Your task to perform on an android device: turn on the 12-hour format for clock Image 0: 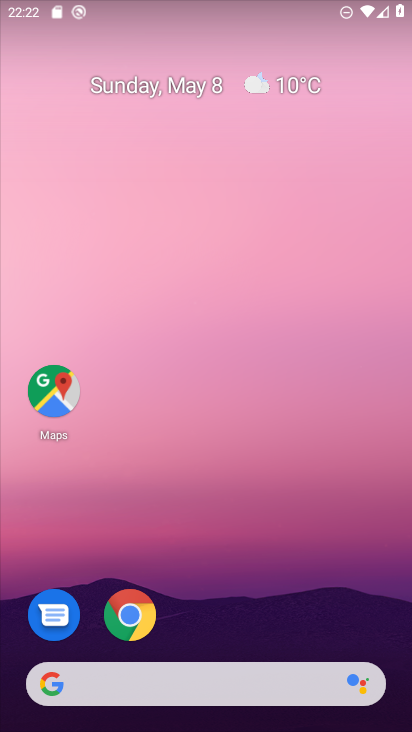
Step 0: drag from (269, 536) to (346, 0)
Your task to perform on an android device: turn on the 12-hour format for clock Image 1: 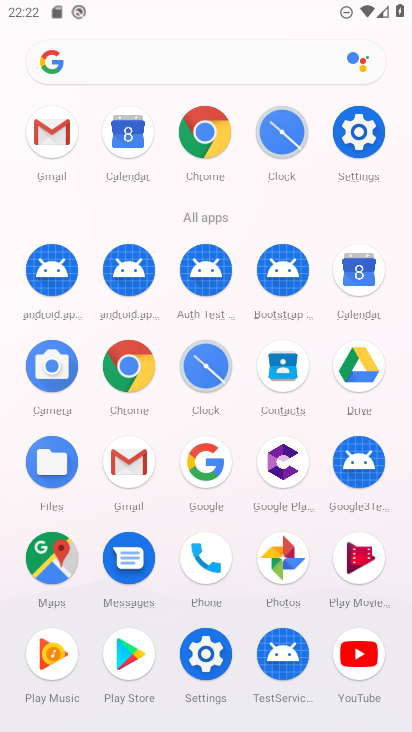
Step 1: click (212, 369)
Your task to perform on an android device: turn on the 12-hour format for clock Image 2: 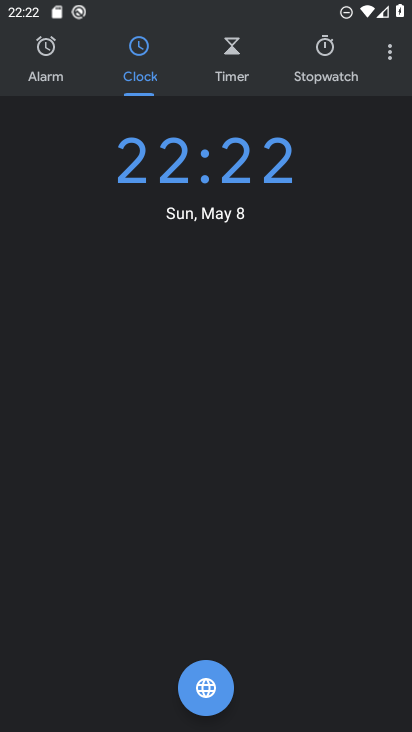
Step 2: click (394, 46)
Your task to perform on an android device: turn on the 12-hour format for clock Image 3: 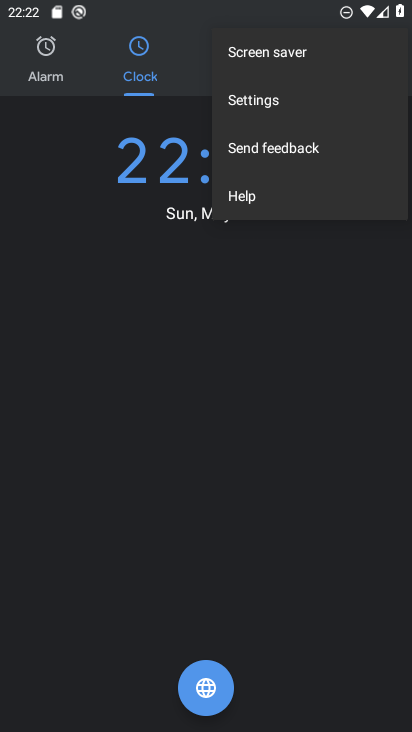
Step 3: click (303, 102)
Your task to perform on an android device: turn on the 12-hour format for clock Image 4: 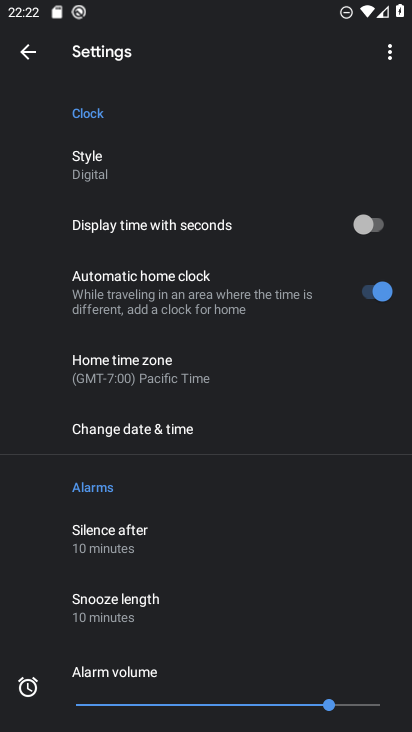
Step 4: drag from (245, 604) to (254, 384)
Your task to perform on an android device: turn on the 12-hour format for clock Image 5: 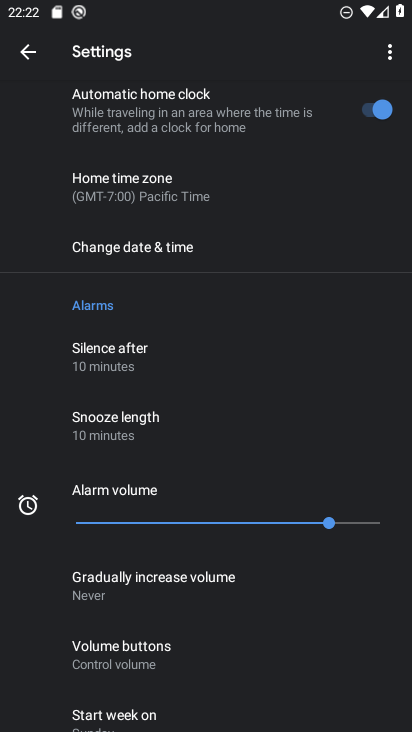
Step 5: click (178, 250)
Your task to perform on an android device: turn on the 12-hour format for clock Image 6: 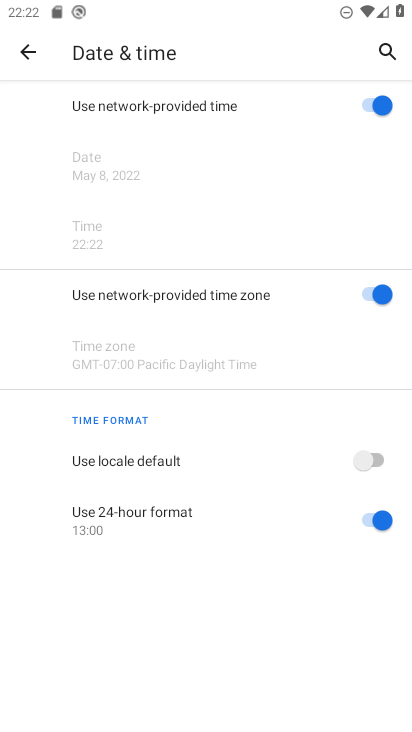
Step 6: click (376, 466)
Your task to perform on an android device: turn on the 12-hour format for clock Image 7: 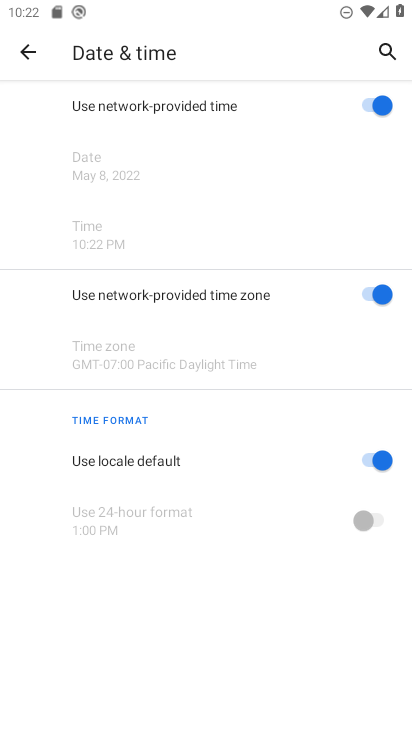
Step 7: task complete